Your task to perform on an android device: turn on priority inbox in the gmail app Image 0: 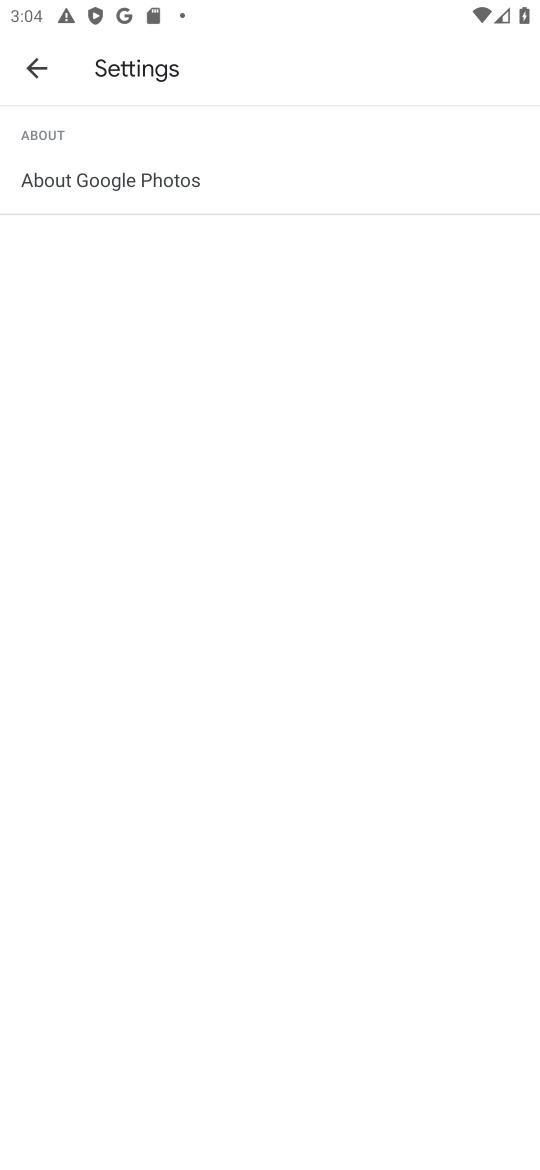
Step 0: click (33, 73)
Your task to perform on an android device: turn on priority inbox in the gmail app Image 1: 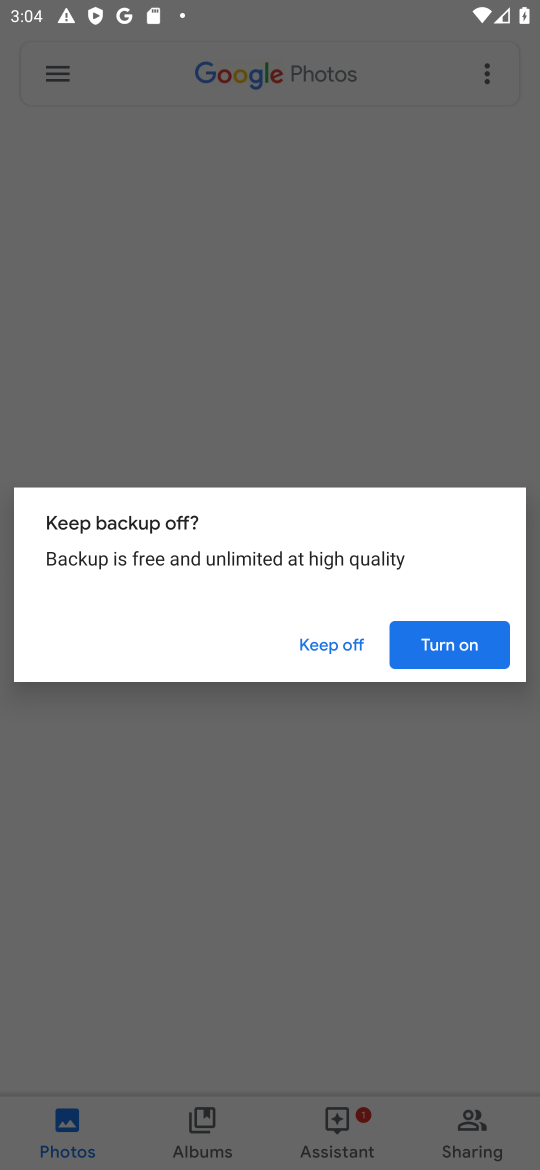
Step 1: click (343, 645)
Your task to perform on an android device: turn on priority inbox in the gmail app Image 2: 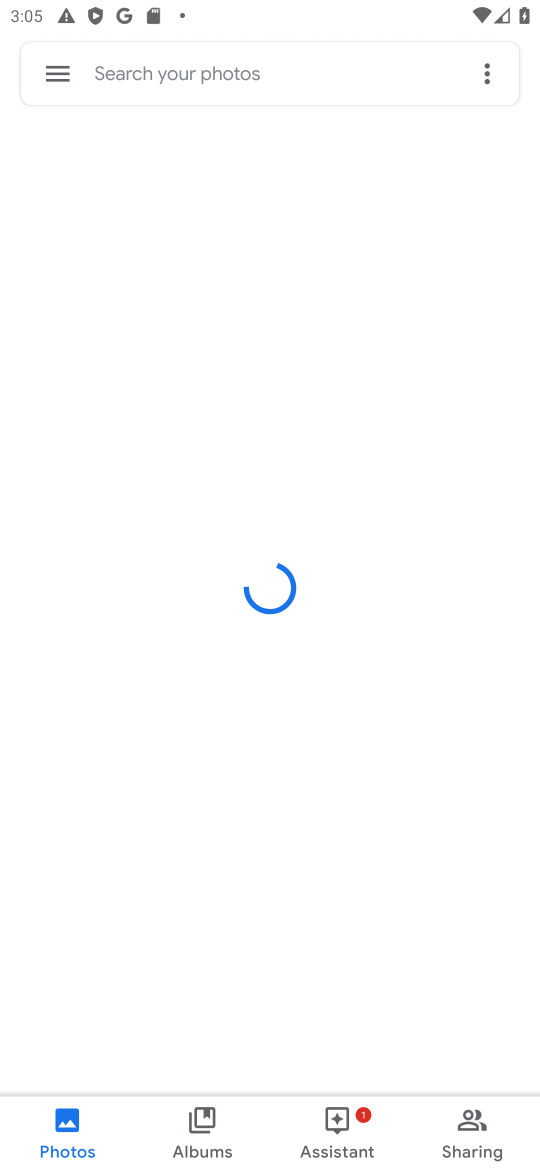
Step 2: press back button
Your task to perform on an android device: turn on priority inbox in the gmail app Image 3: 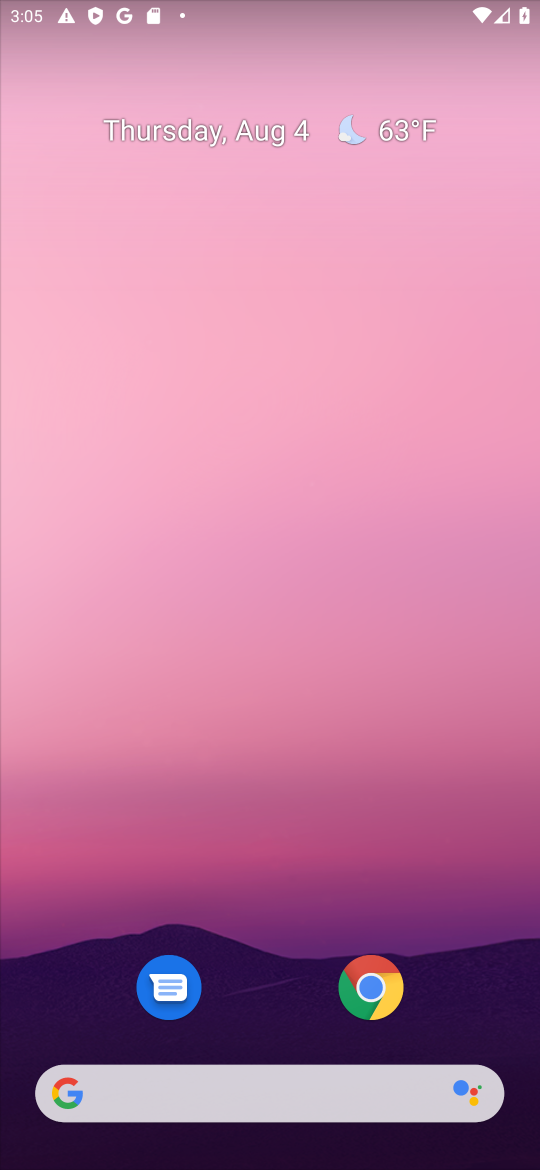
Step 3: drag from (258, 979) to (327, 307)
Your task to perform on an android device: turn on priority inbox in the gmail app Image 4: 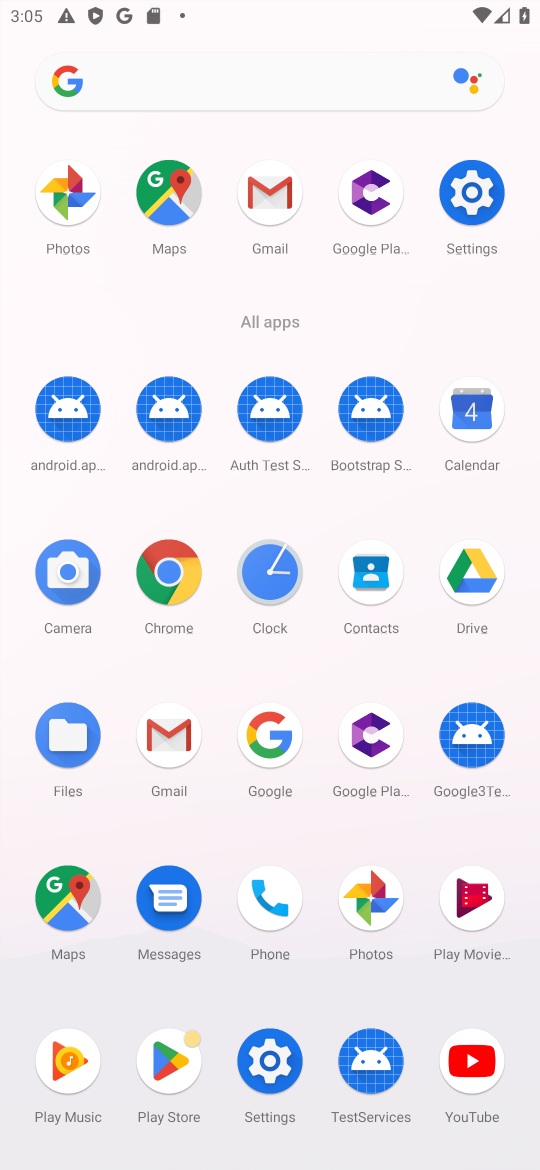
Step 4: click (274, 197)
Your task to perform on an android device: turn on priority inbox in the gmail app Image 5: 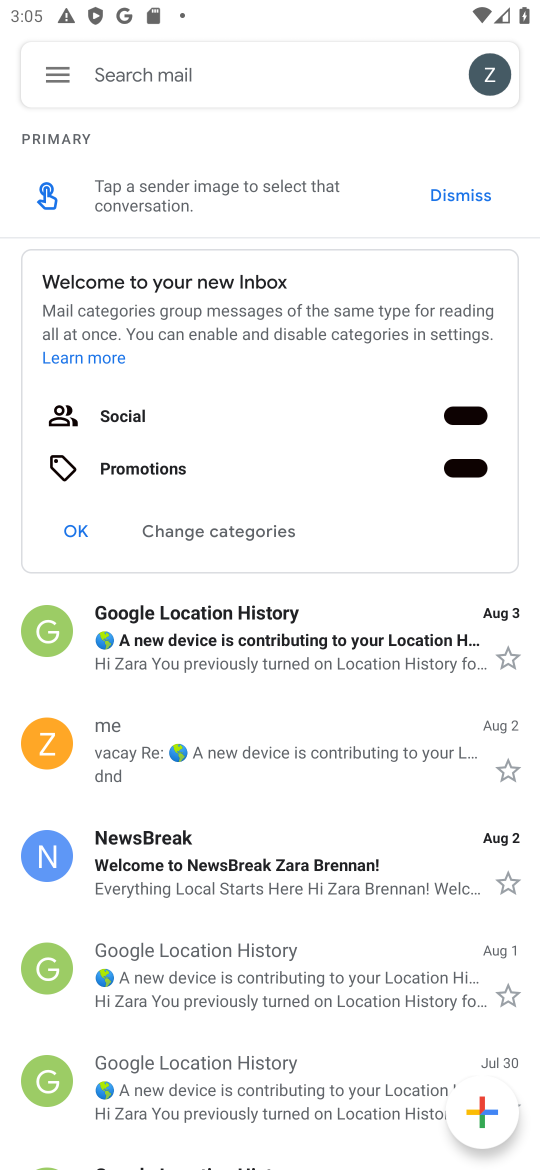
Step 5: click (52, 77)
Your task to perform on an android device: turn on priority inbox in the gmail app Image 6: 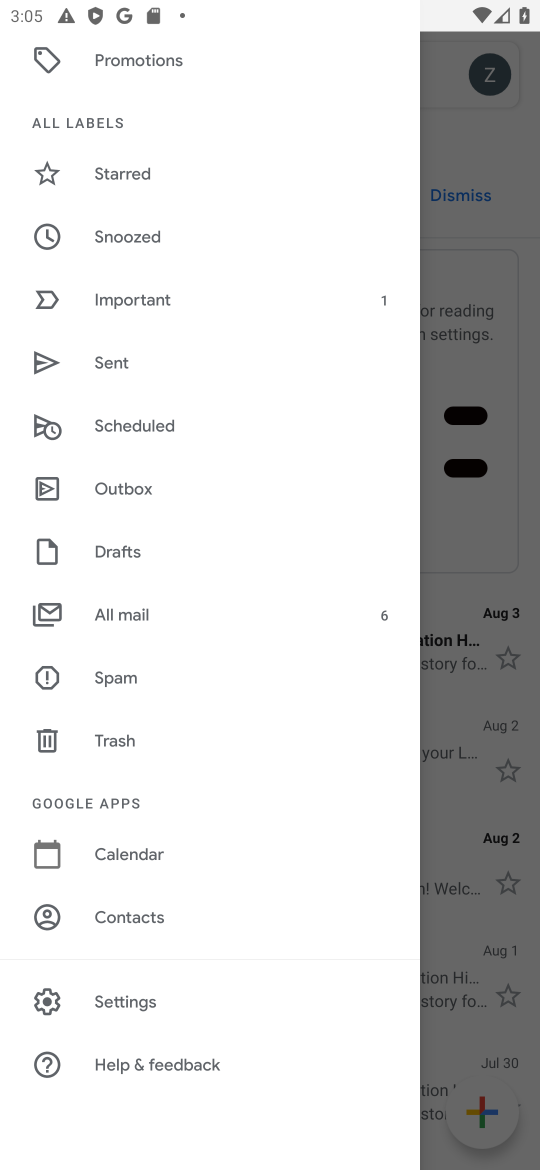
Step 6: click (105, 999)
Your task to perform on an android device: turn on priority inbox in the gmail app Image 7: 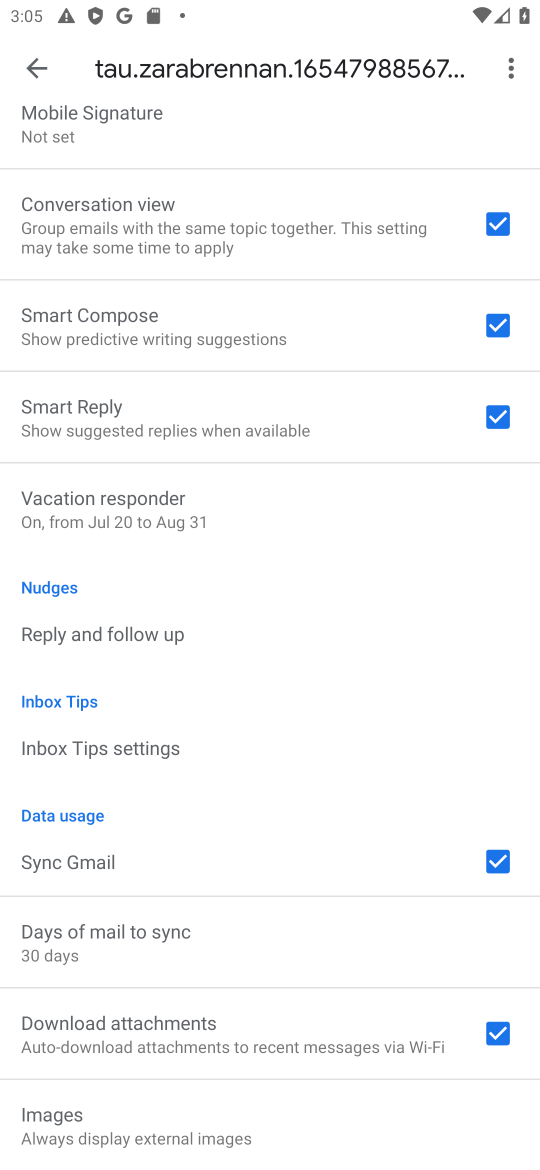
Step 7: drag from (255, 664) to (172, 1113)
Your task to perform on an android device: turn on priority inbox in the gmail app Image 8: 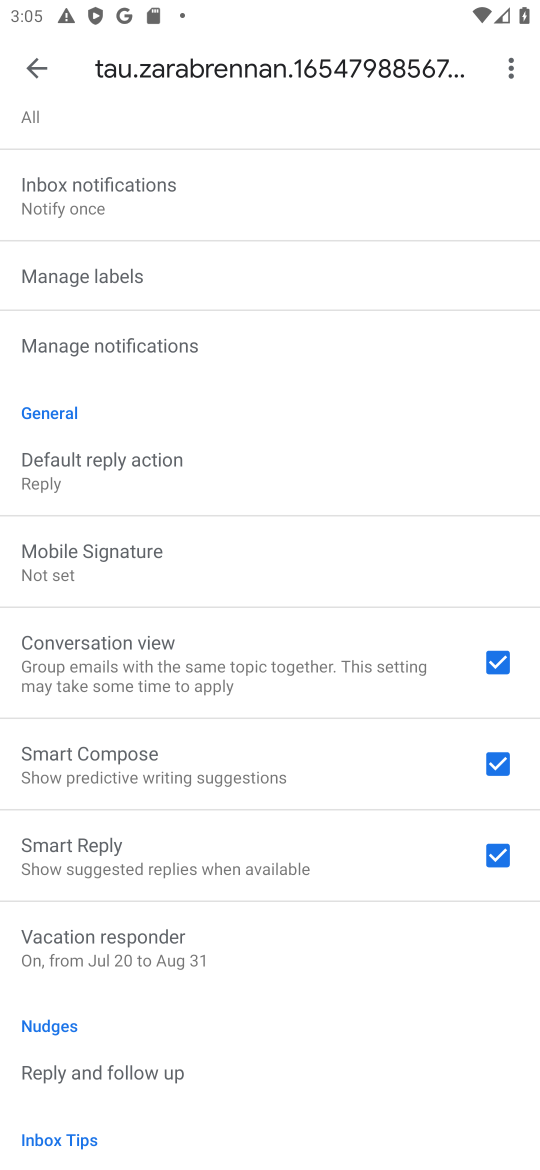
Step 8: drag from (212, 320) to (182, 1081)
Your task to perform on an android device: turn on priority inbox in the gmail app Image 9: 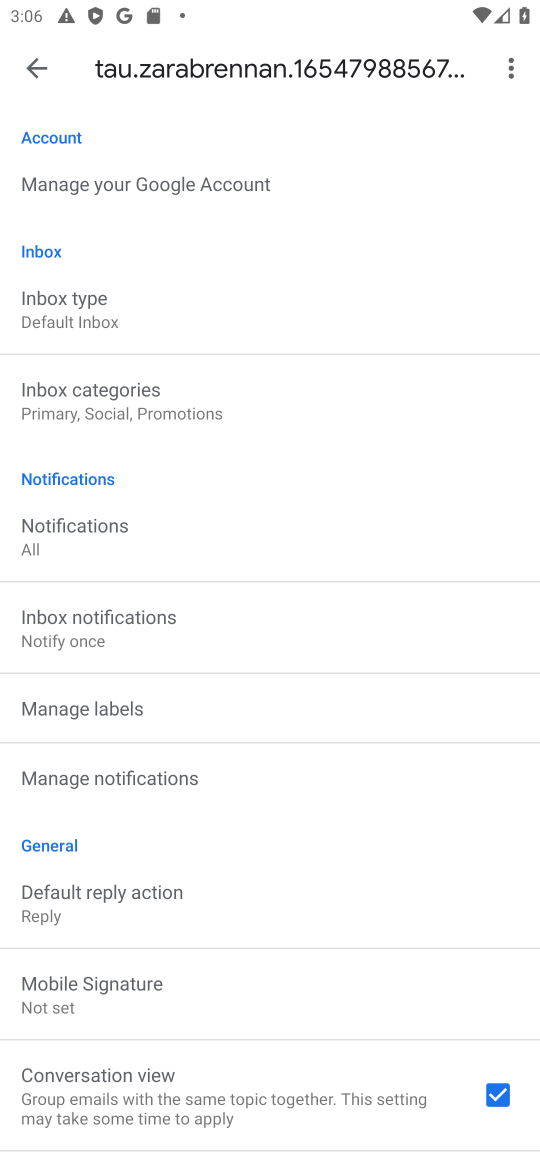
Step 9: click (62, 310)
Your task to perform on an android device: turn on priority inbox in the gmail app Image 10: 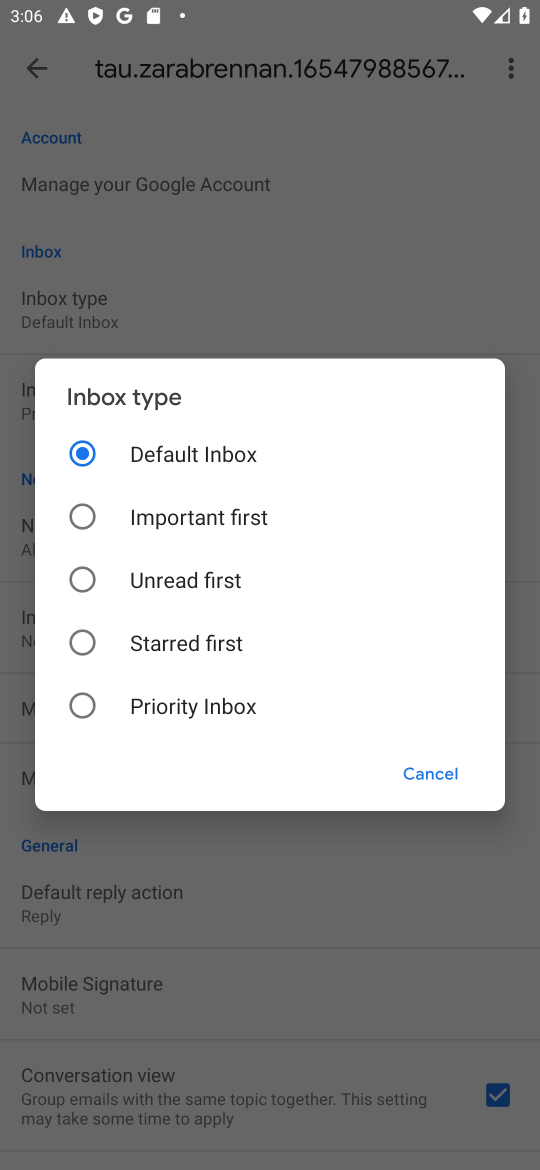
Step 10: click (85, 701)
Your task to perform on an android device: turn on priority inbox in the gmail app Image 11: 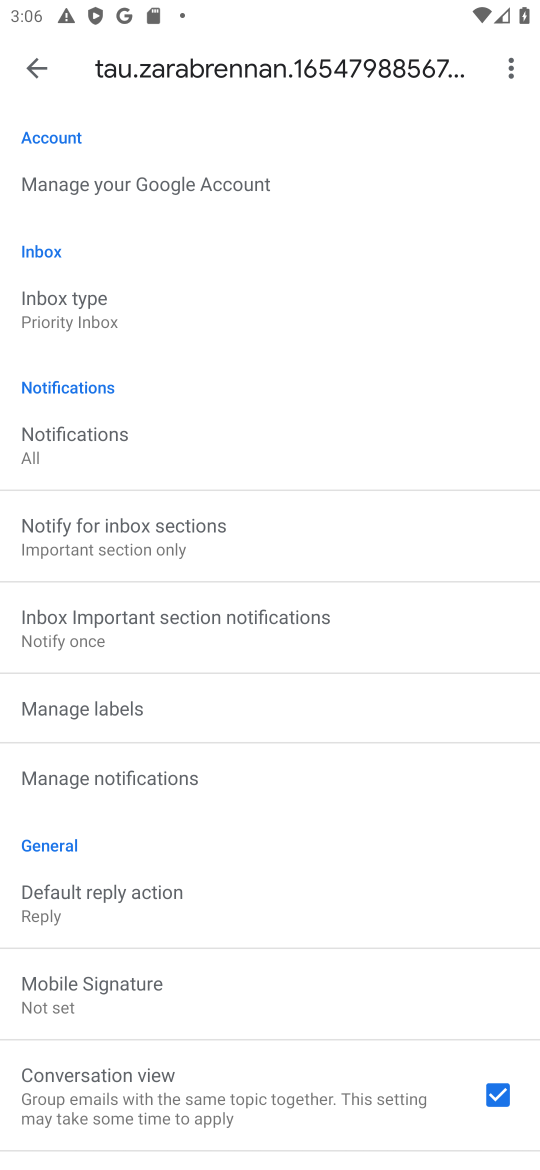
Step 11: task complete